Your task to perform on an android device: empty trash in the gmail app Image 0: 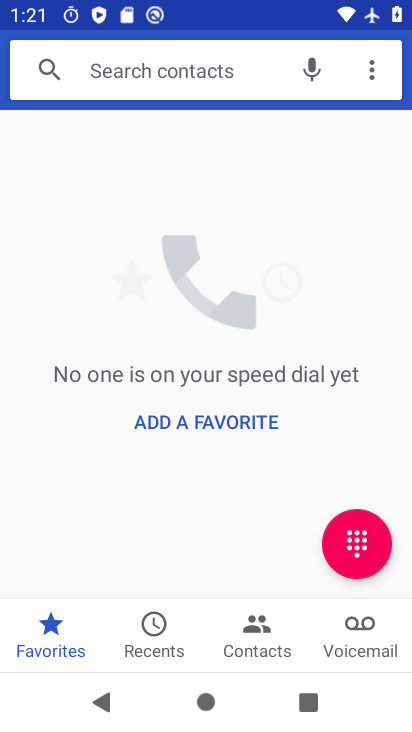
Step 0: press home button
Your task to perform on an android device: empty trash in the gmail app Image 1: 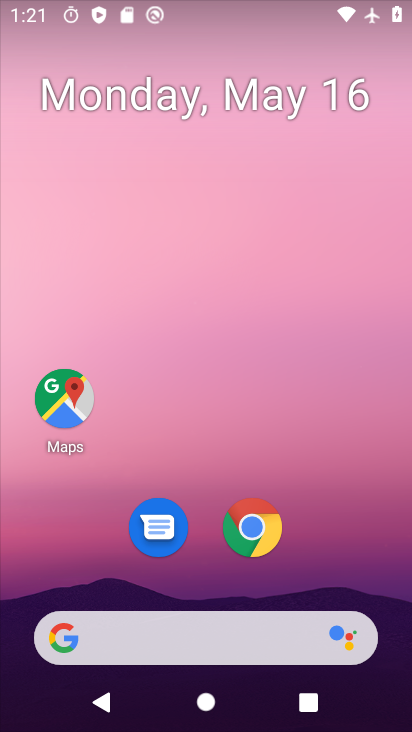
Step 1: drag from (169, 631) to (319, 132)
Your task to perform on an android device: empty trash in the gmail app Image 2: 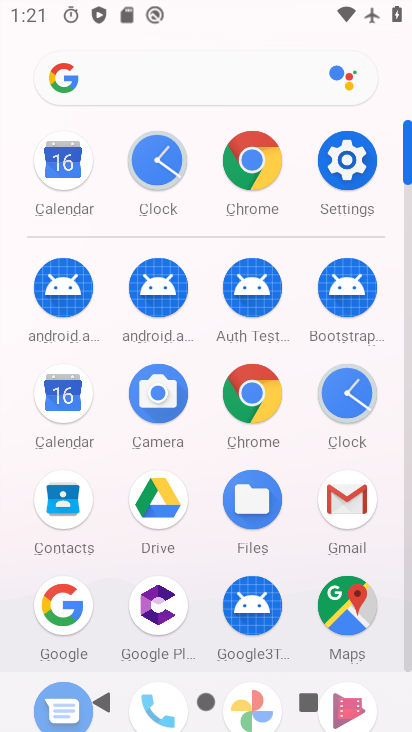
Step 2: click (335, 496)
Your task to perform on an android device: empty trash in the gmail app Image 3: 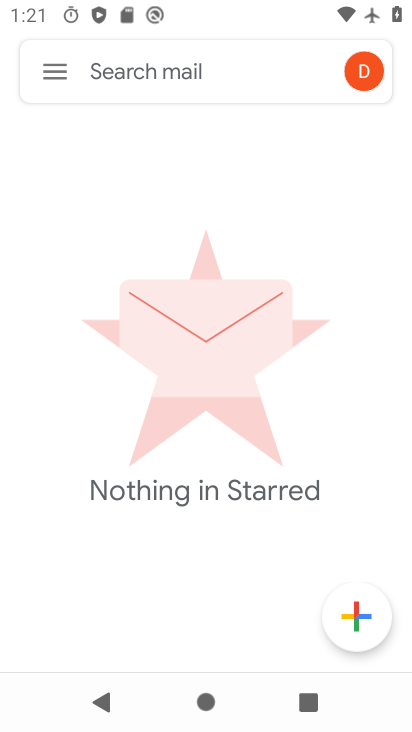
Step 3: click (53, 66)
Your task to perform on an android device: empty trash in the gmail app Image 4: 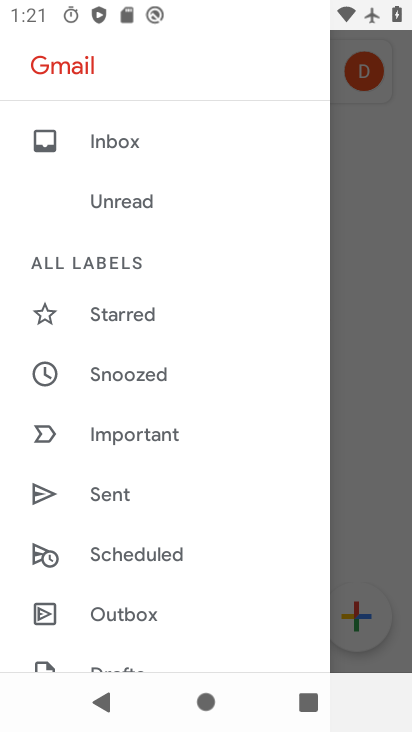
Step 4: drag from (167, 614) to (224, 377)
Your task to perform on an android device: empty trash in the gmail app Image 5: 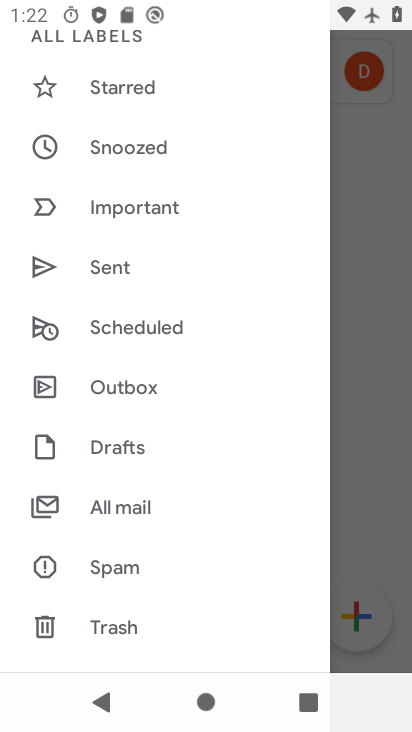
Step 5: click (98, 626)
Your task to perform on an android device: empty trash in the gmail app Image 6: 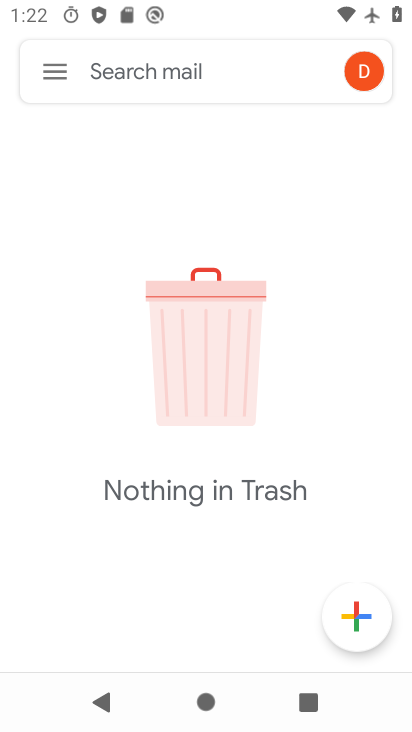
Step 6: task complete